Your task to perform on an android device: Go to Wikipedia Image 0: 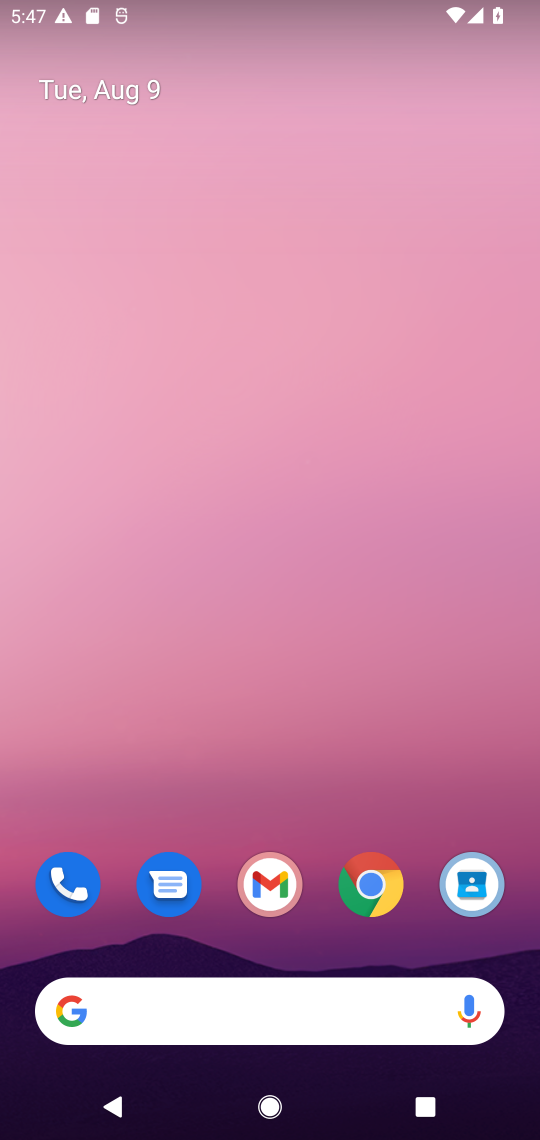
Step 0: click (373, 889)
Your task to perform on an android device: Go to Wikipedia Image 1: 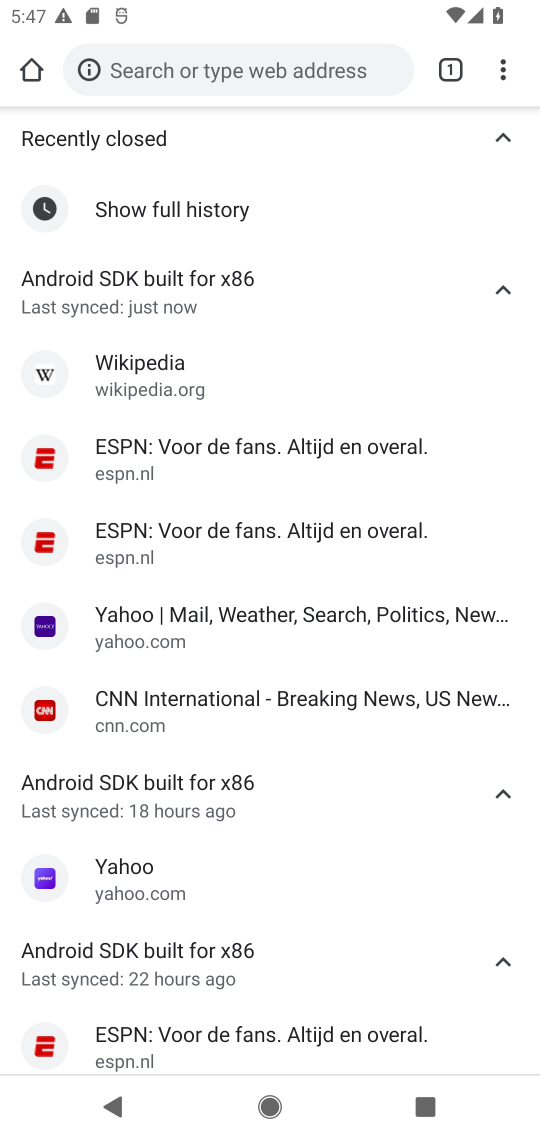
Step 1: click (273, 72)
Your task to perform on an android device: Go to Wikipedia Image 2: 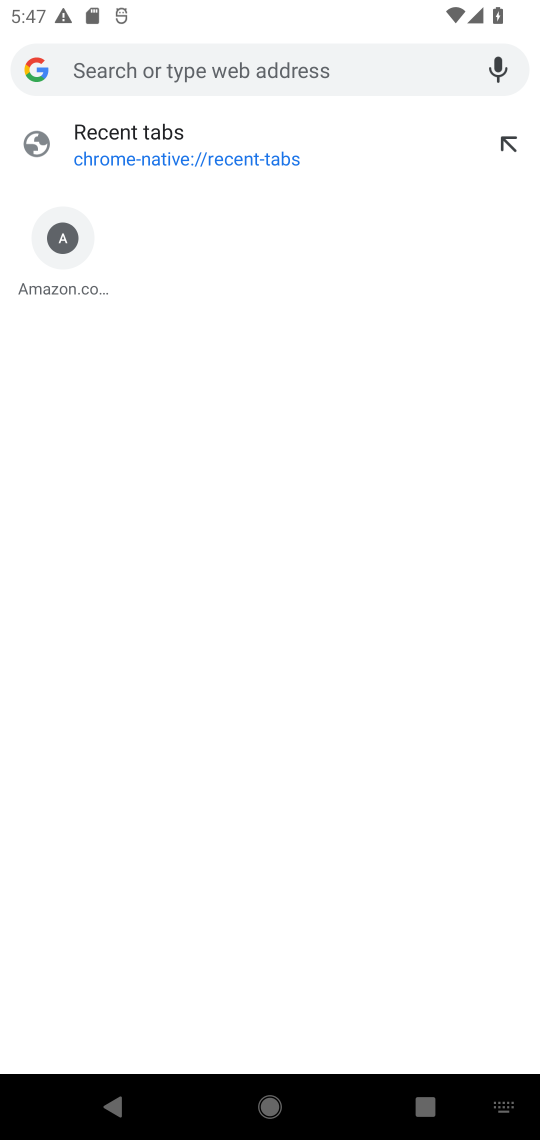
Step 2: type "Wikipedia"
Your task to perform on an android device: Go to Wikipedia Image 3: 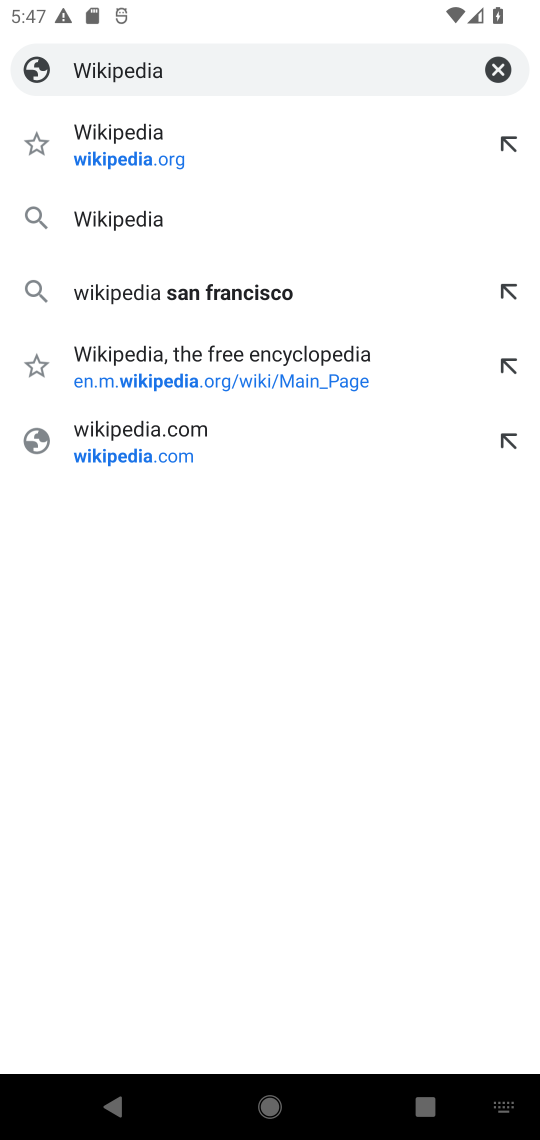
Step 3: click (150, 218)
Your task to perform on an android device: Go to Wikipedia Image 4: 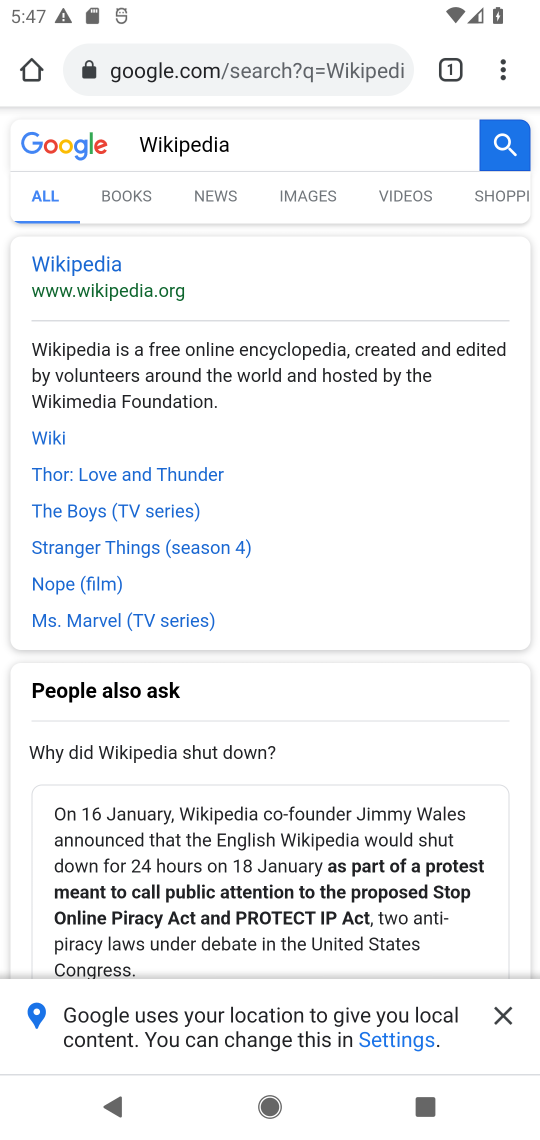
Step 4: click (102, 291)
Your task to perform on an android device: Go to Wikipedia Image 5: 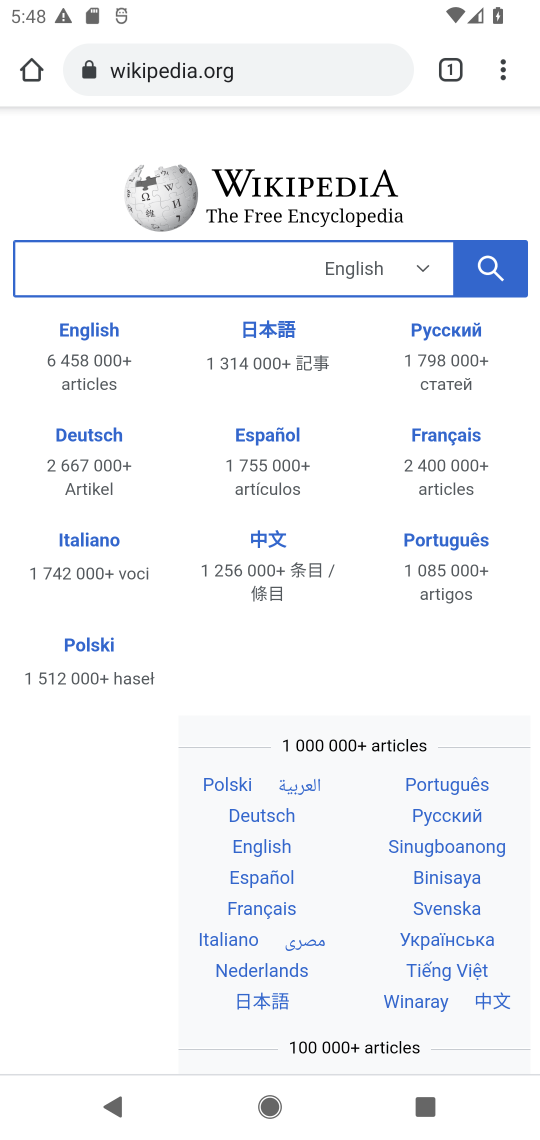
Step 5: task complete